Your task to perform on an android device: find snoozed emails in the gmail app Image 0: 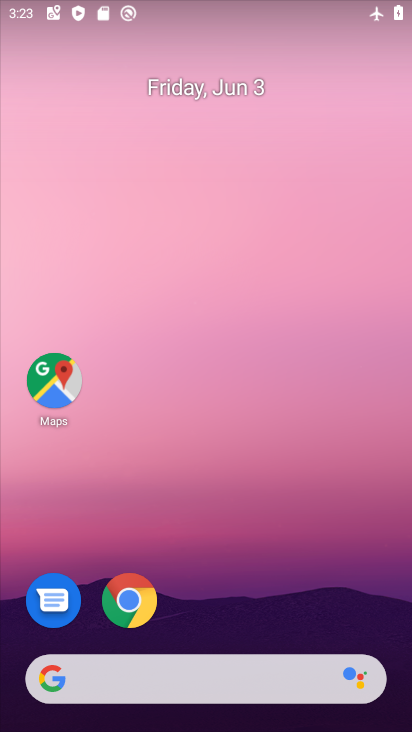
Step 0: drag from (217, 627) to (246, 188)
Your task to perform on an android device: find snoozed emails in the gmail app Image 1: 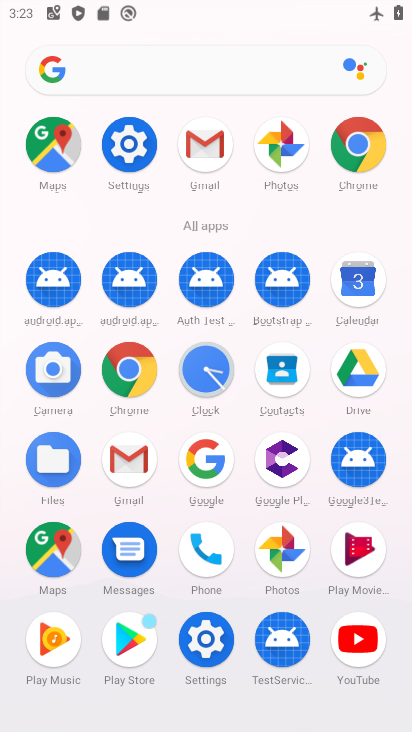
Step 1: click (131, 460)
Your task to perform on an android device: find snoozed emails in the gmail app Image 2: 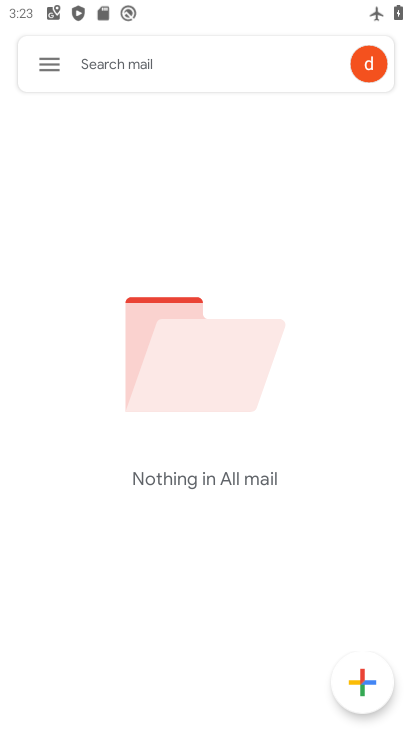
Step 2: click (44, 57)
Your task to perform on an android device: find snoozed emails in the gmail app Image 3: 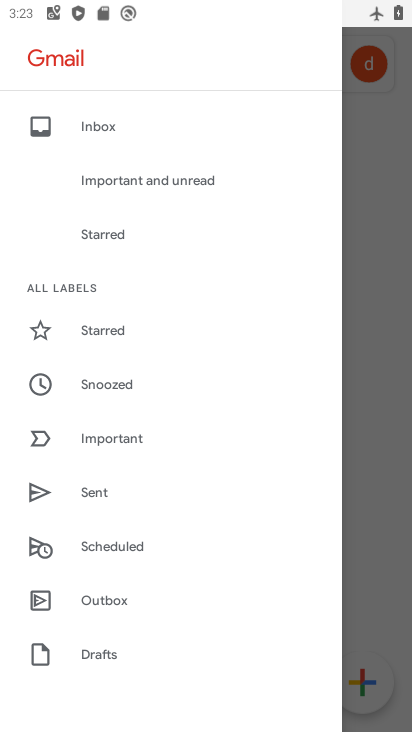
Step 3: click (114, 383)
Your task to perform on an android device: find snoozed emails in the gmail app Image 4: 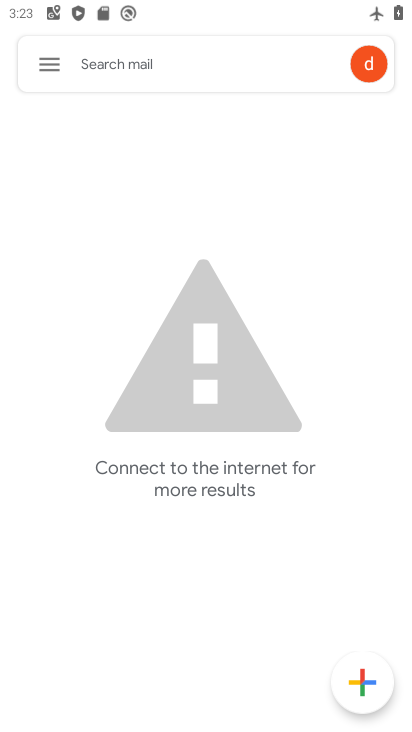
Step 4: task complete